Your task to perform on an android device: turn notification dots off Image 0: 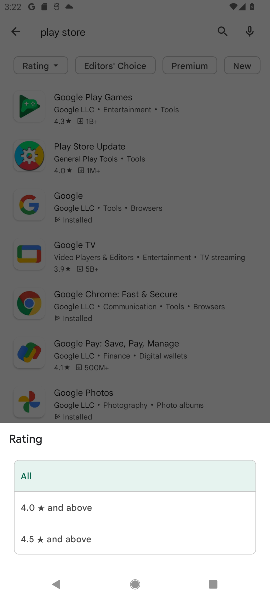
Step 0: press back button
Your task to perform on an android device: turn notification dots off Image 1: 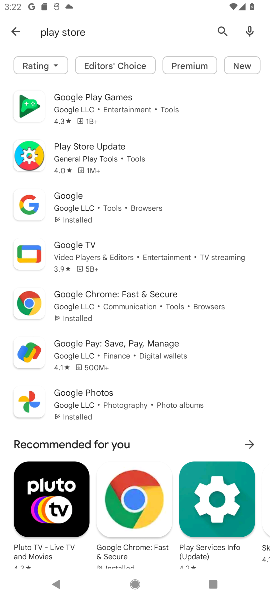
Step 1: click (15, 31)
Your task to perform on an android device: turn notification dots off Image 2: 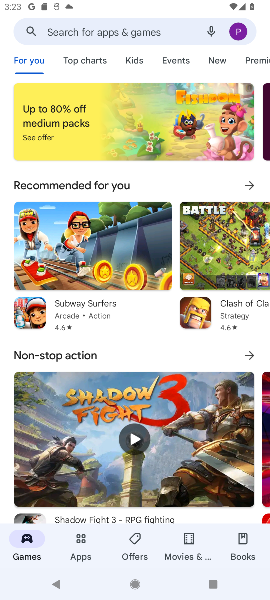
Step 2: press back button
Your task to perform on an android device: turn notification dots off Image 3: 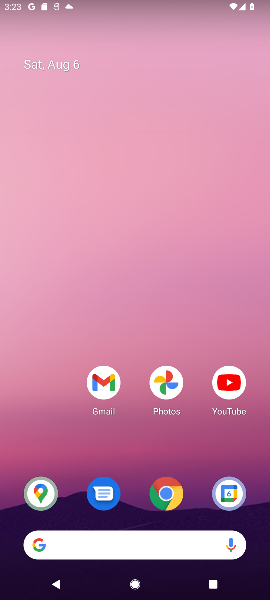
Step 3: drag from (161, 570) to (56, 86)
Your task to perform on an android device: turn notification dots off Image 4: 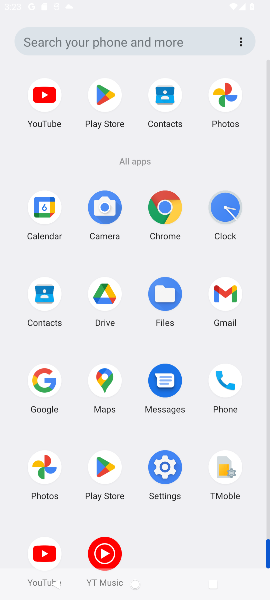
Step 4: drag from (164, 485) to (127, 126)
Your task to perform on an android device: turn notification dots off Image 5: 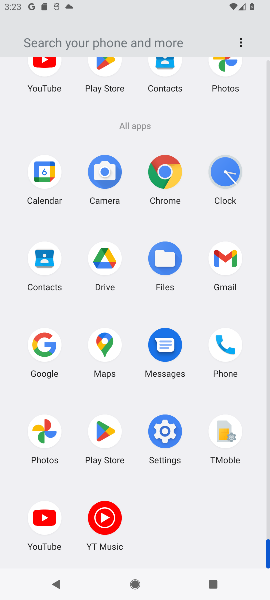
Step 5: click (166, 430)
Your task to perform on an android device: turn notification dots off Image 6: 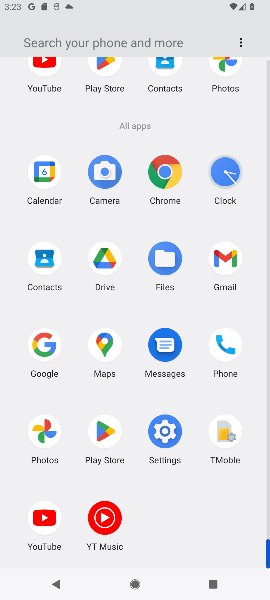
Step 6: click (166, 430)
Your task to perform on an android device: turn notification dots off Image 7: 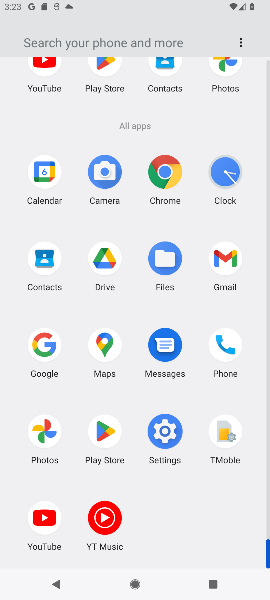
Step 7: click (165, 431)
Your task to perform on an android device: turn notification dots off Image 8: 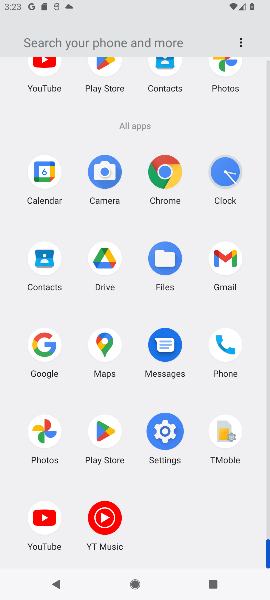
Step 8: click (165, 432)
Your task to perform on an android device: turn notification dots off Image 9: 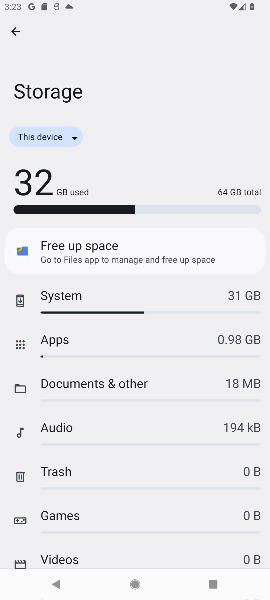
Step 9: click (12, 29)
Your task to perform on an android device: turn notification dots off Image 10: 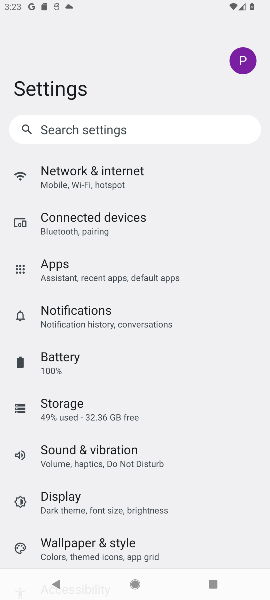
Step 10: click (65, 318)
Your task to perform on an android device: turn notification dots off Image 11: 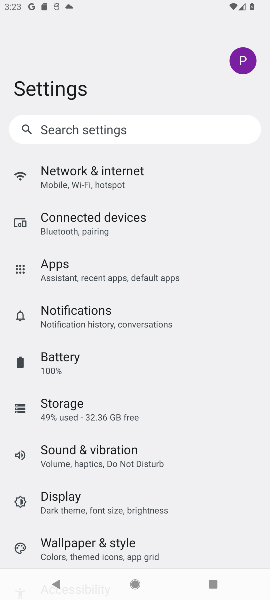
Step 11: click (65, 318)
Your task to perform on an android device: turn notification dots off Image 12: 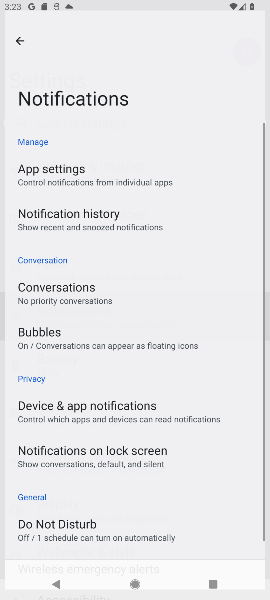
Step 12: click (65, 318)
Your task to perform on an android device: turn notification dots off Image 13: 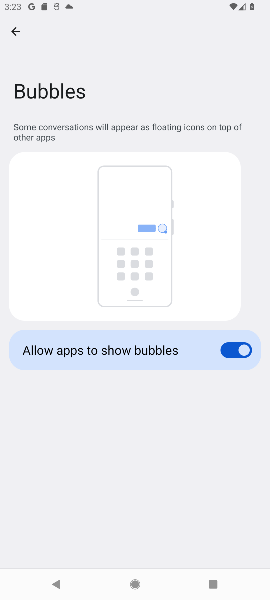
Step 13: click (17, 25)
Your task to perform on an android device: turn notification dots off Image 14: 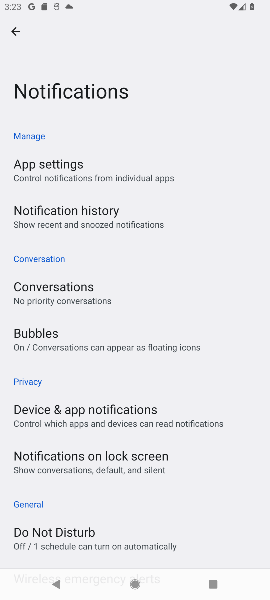
Step 14: drag from (118, 503) to (117, 243)
Your task to perform on an android device: turn notification dots off Image 15: 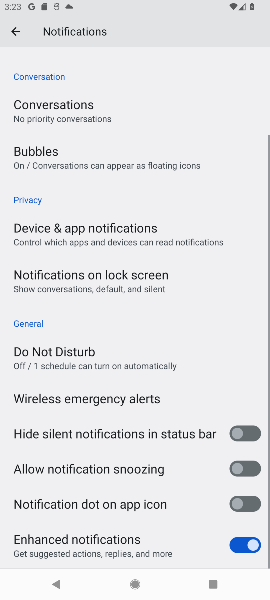
Step 15: drag from (67, 479) to (65, 322)
Your task to perform on an android device: turn notification dots off Image 16: 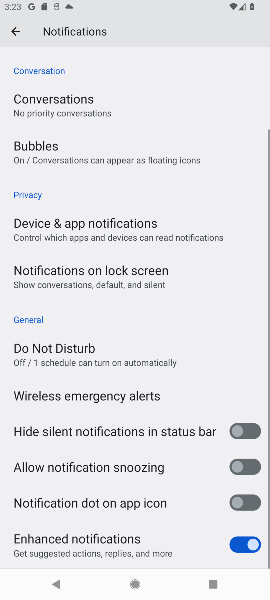
Step 16: drag from (109, 381) to (121, 314)
Your task to perform on an android device: turn notification dots off Image 17: 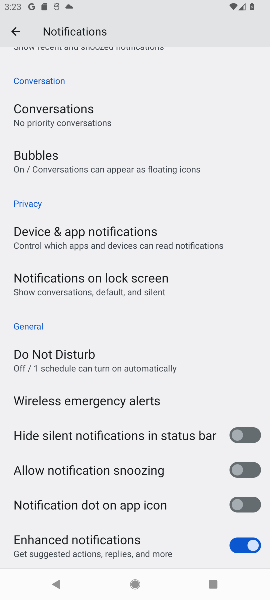
Step 17: drag from (95, 431) to (85, 237)
Your task to perform on an android device: turn notification dots off Image 18: 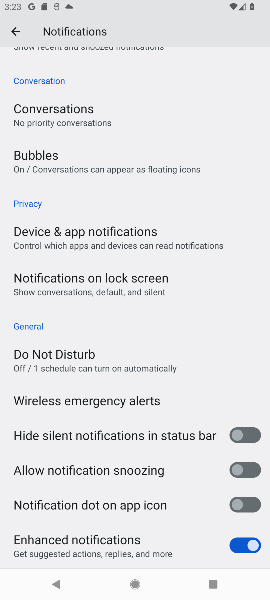
Step 18: drag from (103, 135) to (140, 399)
Your task to perform on an android device: turn notification dots off Image 19: 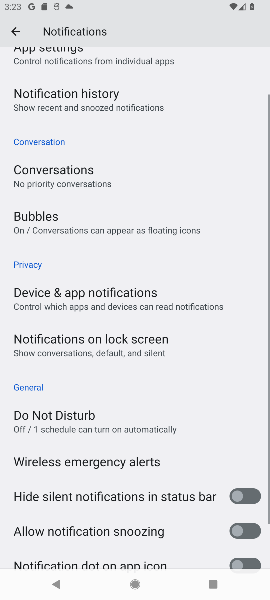
Step 19: drag from (75, 167) to (110, 426)
Your task to perform on an android device: turn notification dots off Image 20: 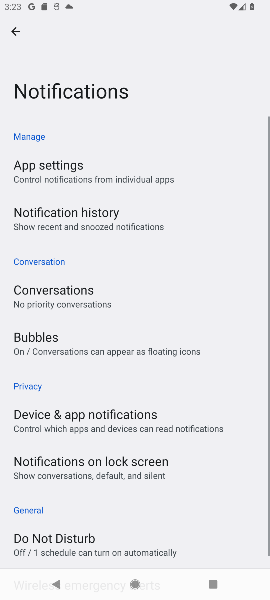
Step 20: drag from (66, 194) to (94, 412)
Your task to perform on an android device: turn notification dots off Image 21: 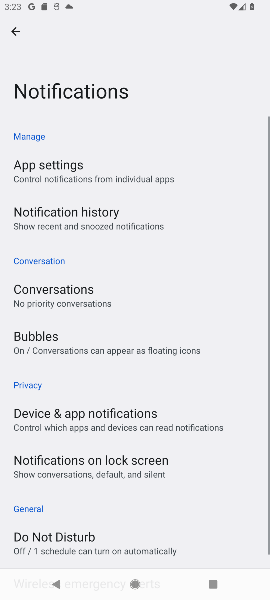
Step 21: drag from (86, 233) to (97, 394)
Your task to perform on an android device: turn notification dots off Image 22: 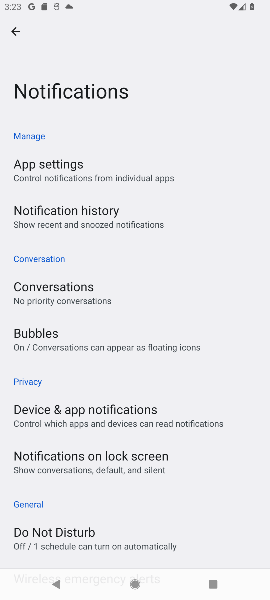
Step 22: drag from (111, 378) to (109, 97)
Your task to perform on an android device: turn notification dots off Image 23: 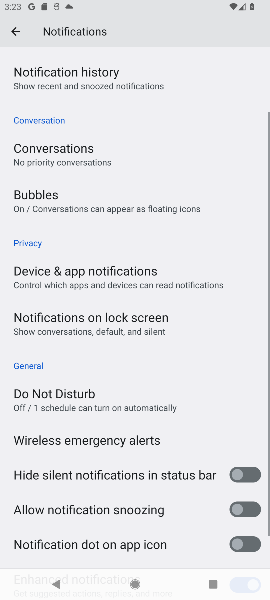
Step 23: click (152, 302)
Your task to perform on an android device: turn notification dots off Image 24: 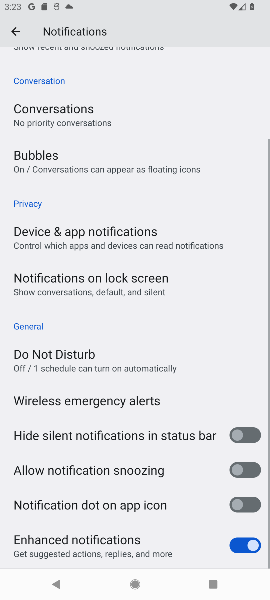
Step 24: drag from (153, 423) to (153, 250)
Your task to perform on an android device: turn notification dots off Image 25: 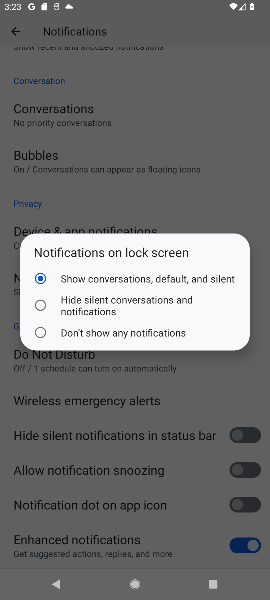
Step 25: click (214, 153)
Your task to perform on an android device: turn notification dots off Image 26: 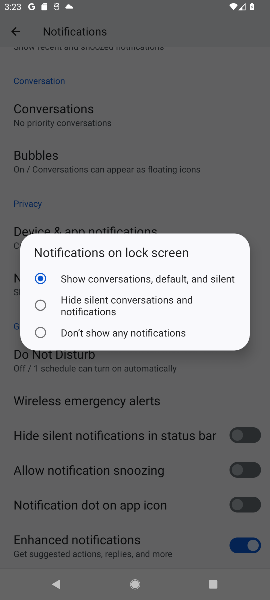
Step 26: click (214, 153)
Your task to perform on an android device: turn notification dots off Image 27: 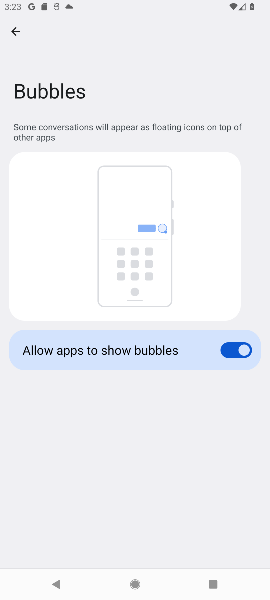
Step 27: click (13, 27)
Your task to perform on an android device: turn notification dots off Image 28: 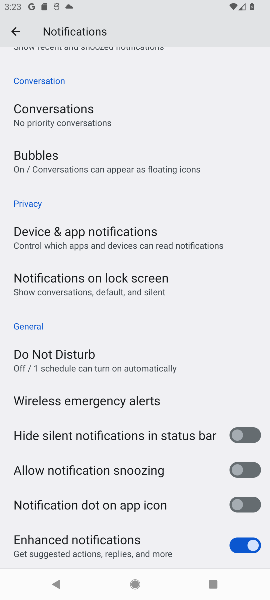
Step 28: task complete